Your task to perform on an android device: search for starred emails in the gmail app Image 0: 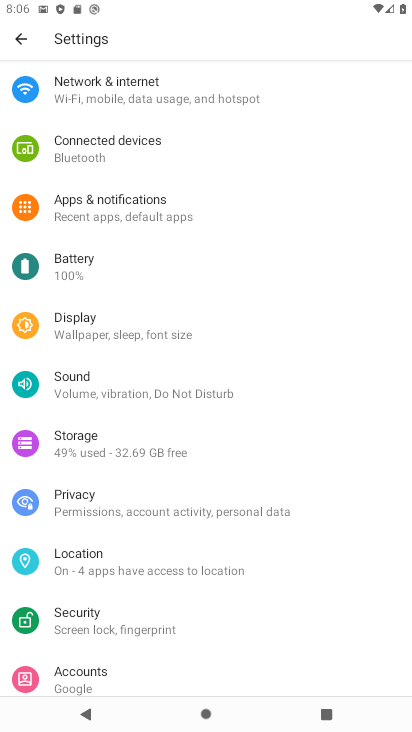
Step 0: press home button
Your task to perform on an android device: search for starred emails in the gmail app Image 1: 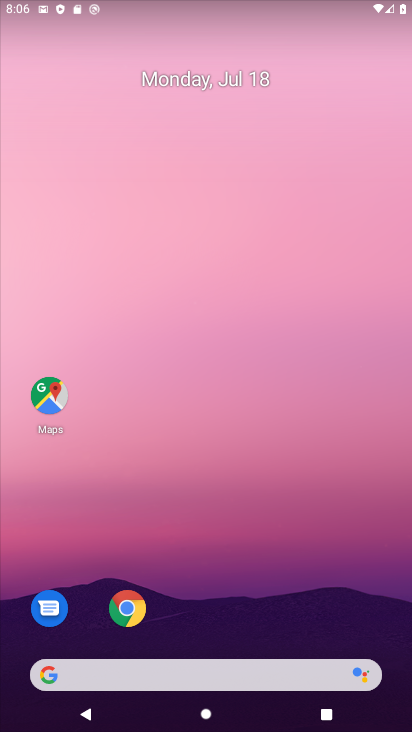
Step 1: drag from (313, 561) to (362, 0)
Your task to perform on an android device: search for starred emails in the gmail app Image 2: 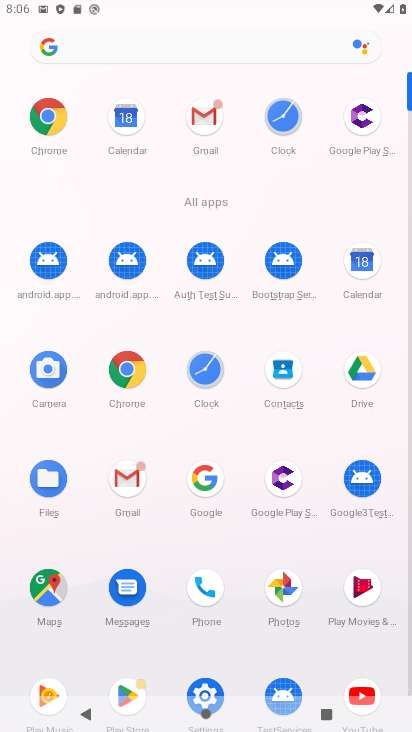
Step 2: click (199, 119)
Your task to perform on an android device: search for starred emails in the gmail app Image 3: 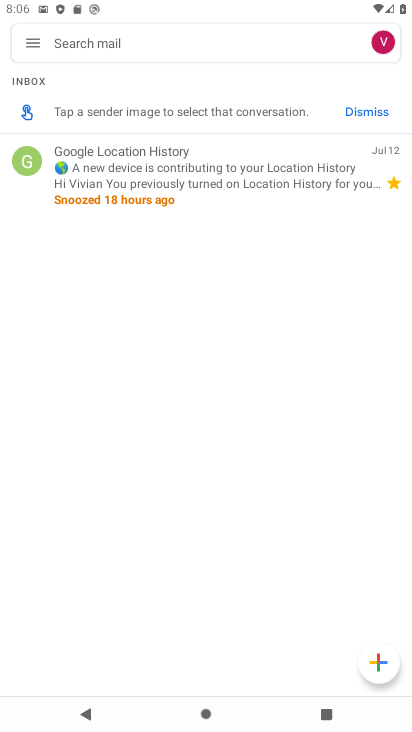
Step 3: click (28, 45)
Your task to perform on an android device: search for starred emails in the gmail app Image 4: 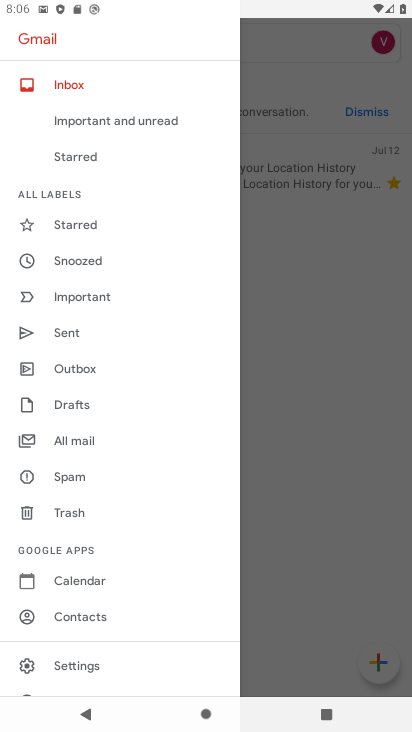
Step 4: click (90, 226)
Your task to perform on an android device: search for starred emails in the gmail app Image 5: 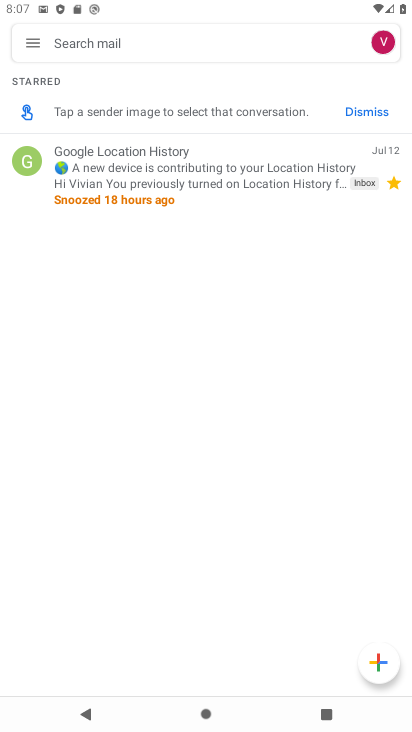
Step 5: task complete